Your task to perform on an android device: What's the weather? Image 0: 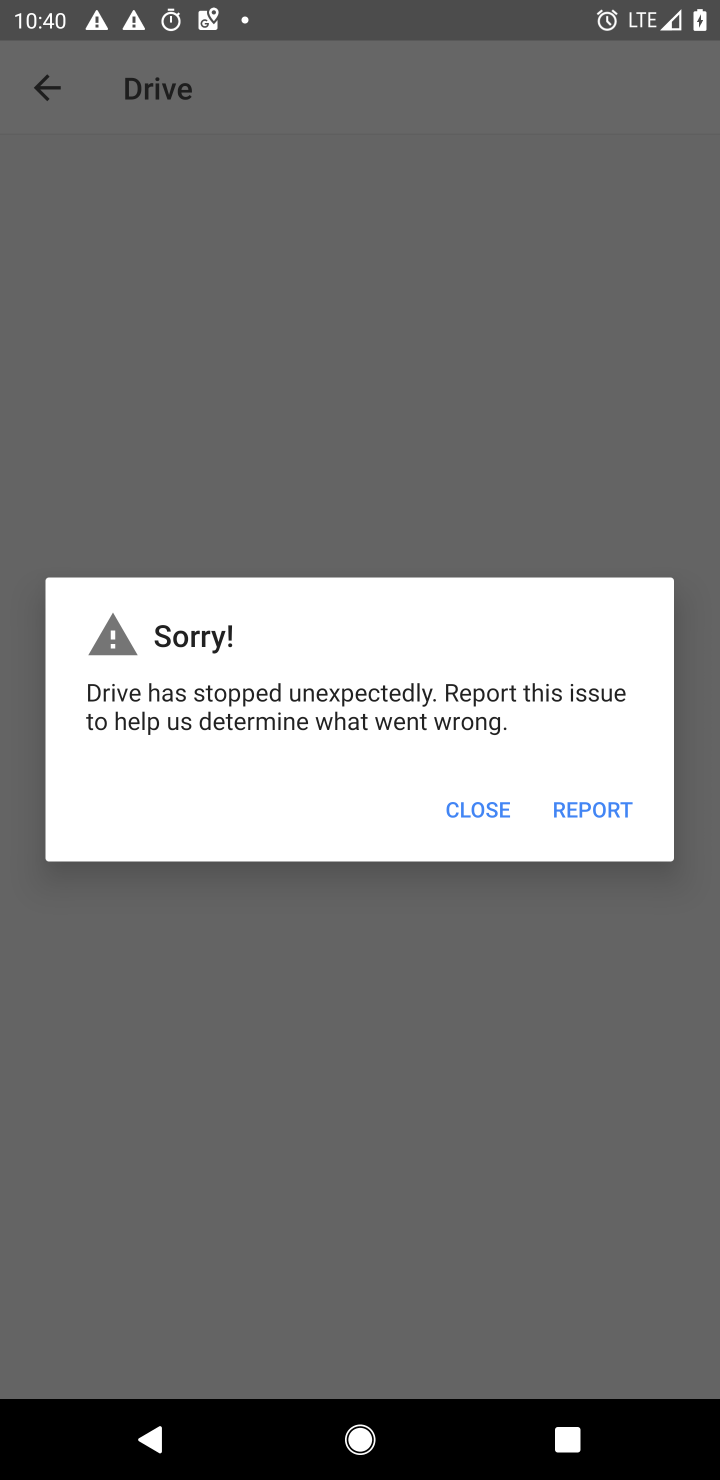
Step 0: press back button
Your task to perform on an android device: What's the weather? Image 1: 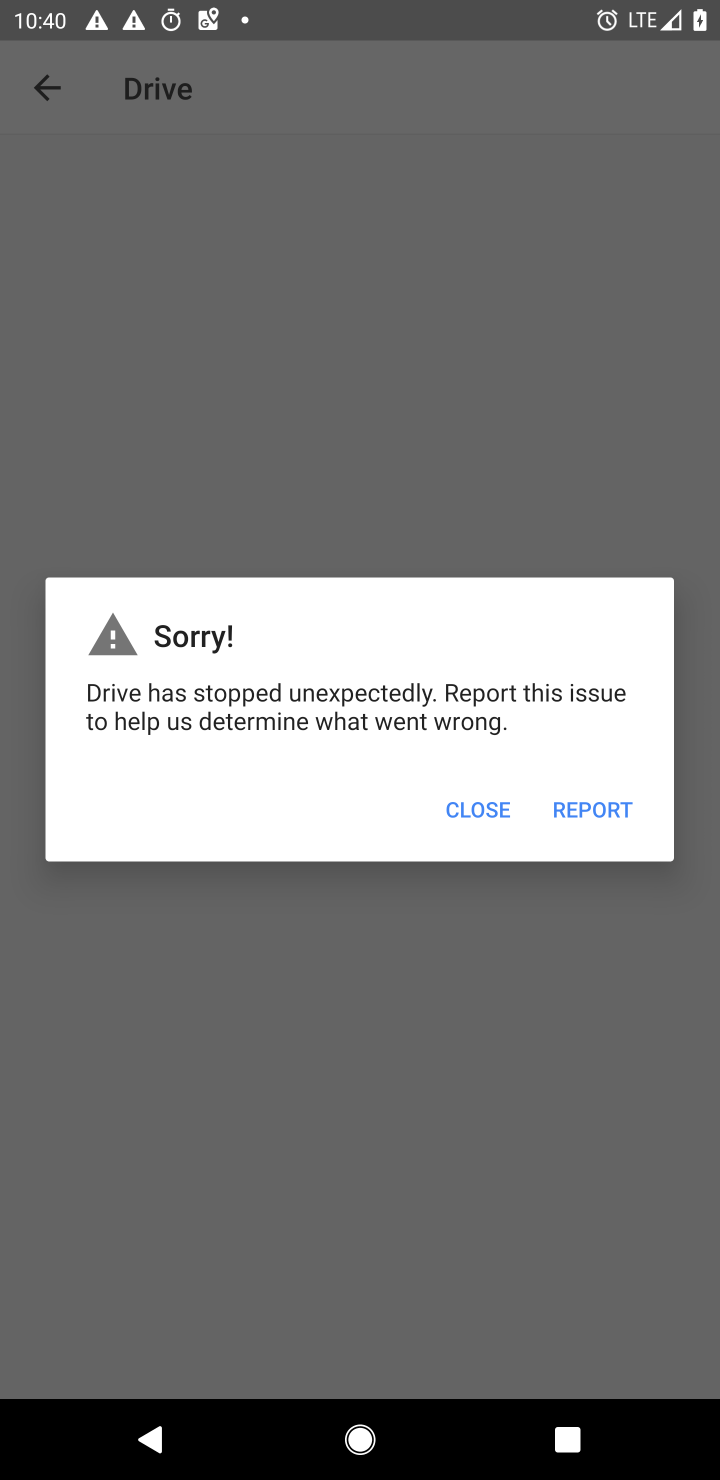
Step 1: press home button
Your task to perform on an android device: What's the weather? Image 2: 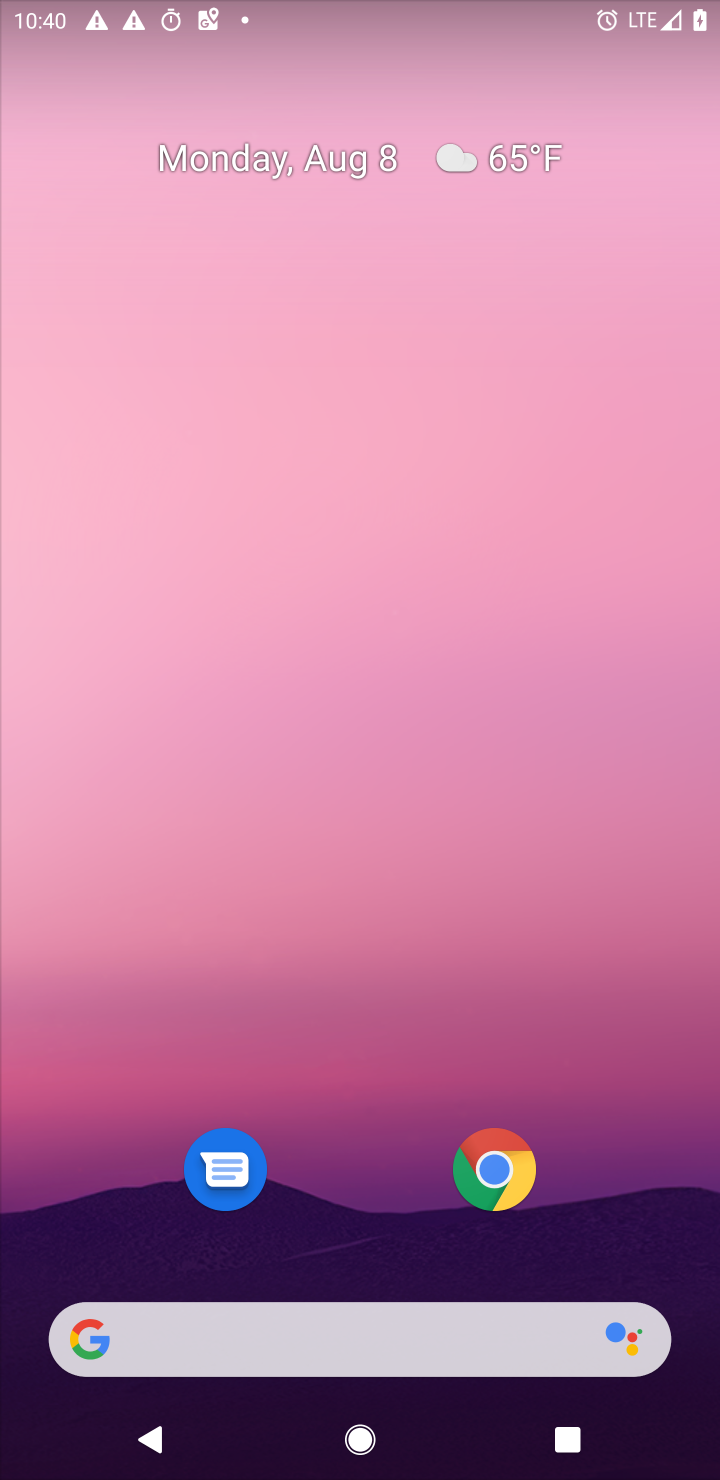
Step 2: click (355, 1333)
Your task to perform on an android device: What's the weather? Image 3: 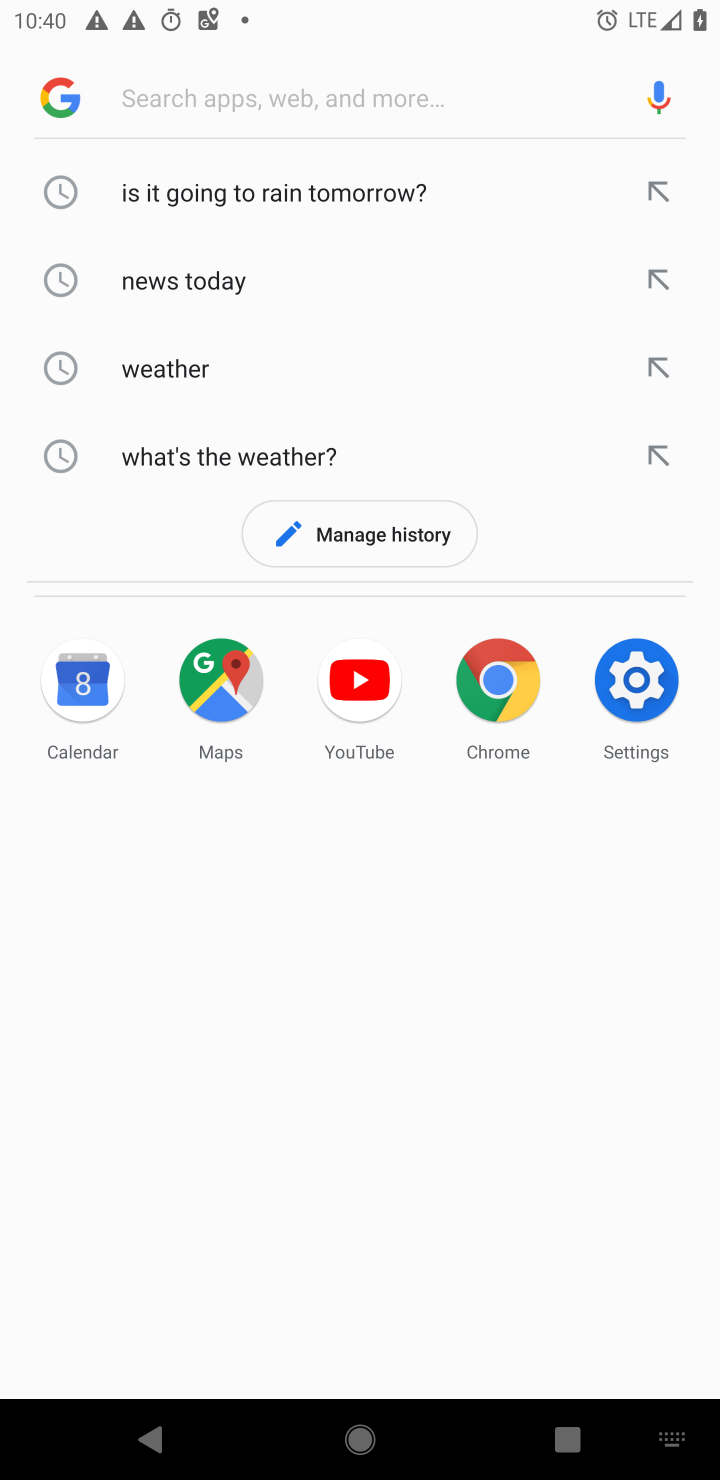
Step 3: click (186, 358)
Your task to perform on an android device: What's the weather? Image 4: 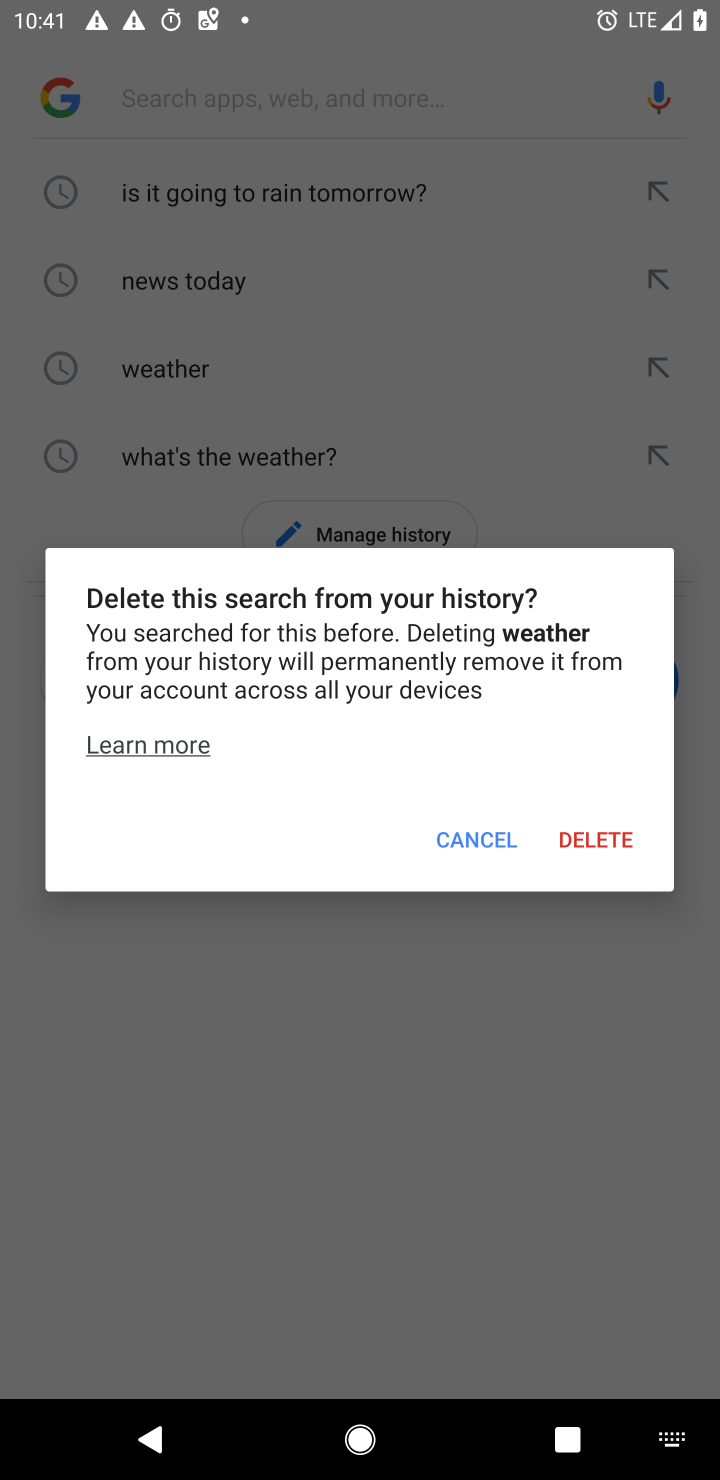
Step 4: click (497, 825)
Your task to perform on an android device: What's the weather? Image 5: 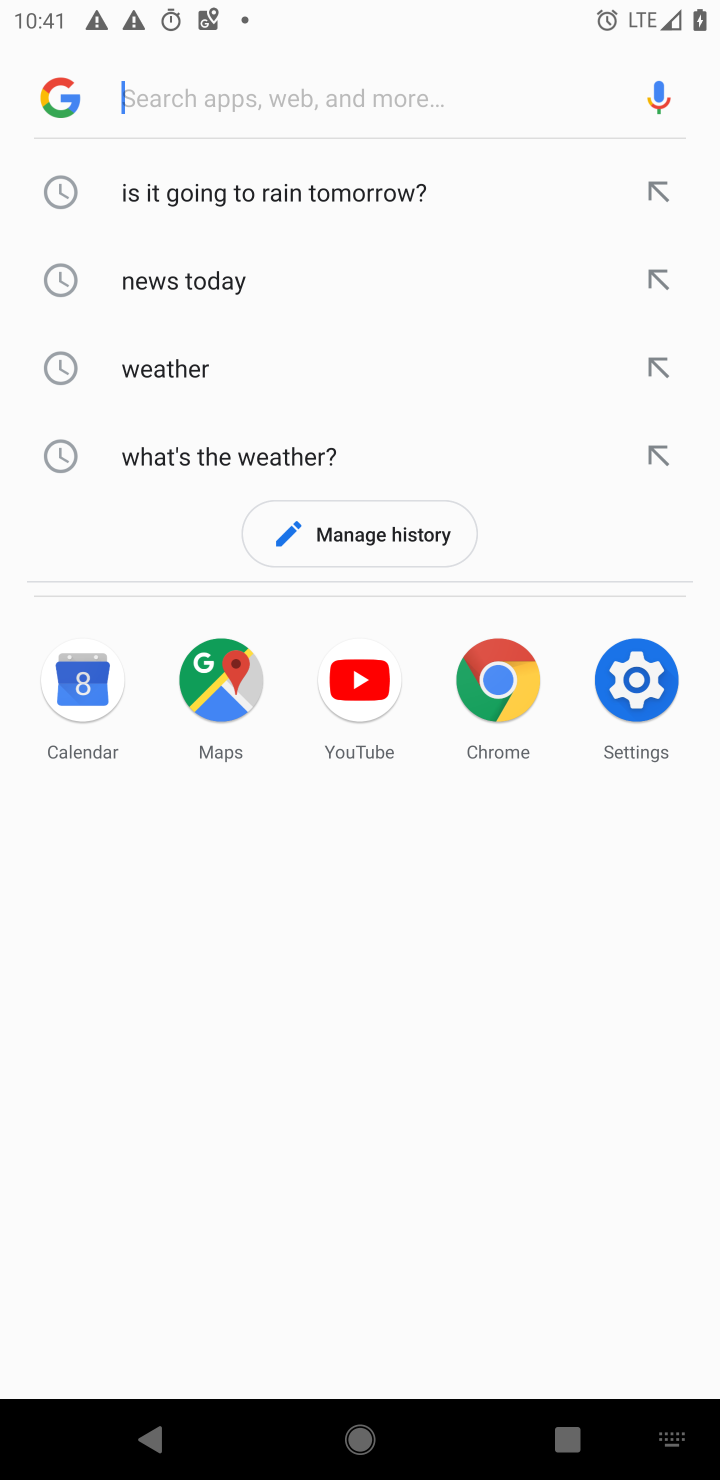
Step 5: click (194, 358)
Your task to perform on an android device: What's the weather? Image 6: 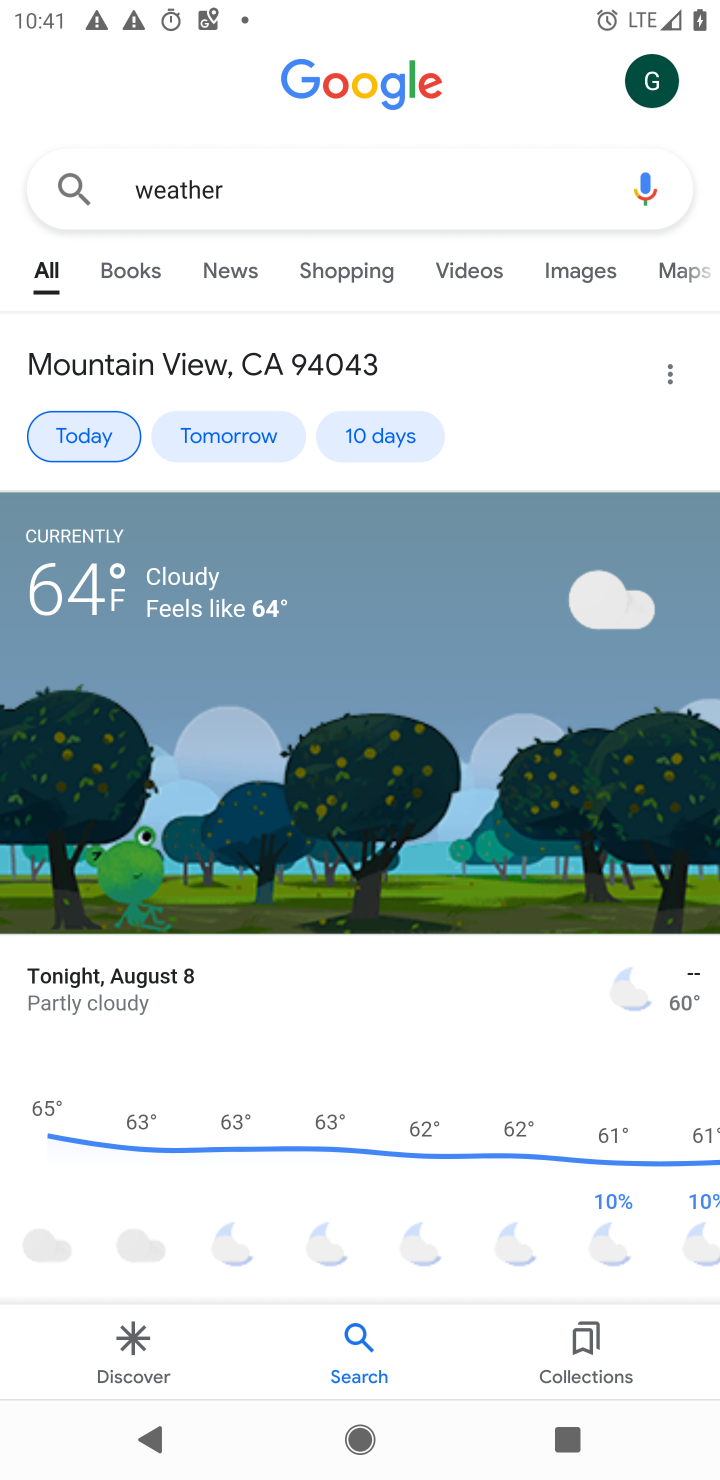
Step 6: task complete